Your task to perform on an android device: Open Yahoo.com Image 0: 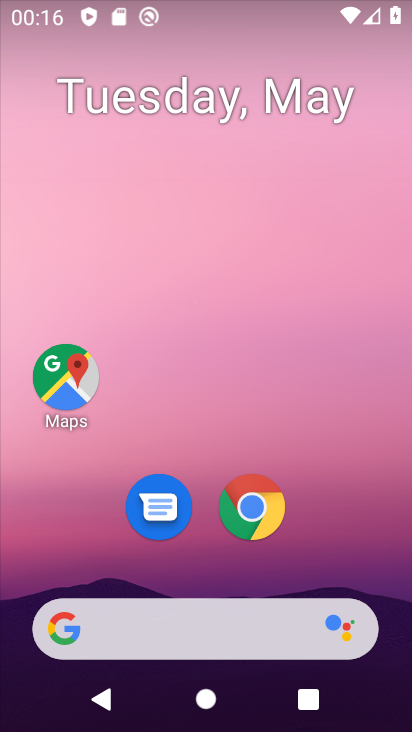
Step 0: drag from (192, 588) to (244, 246)
Your task to perform on an android device: Open Yahoo.com Image 1: 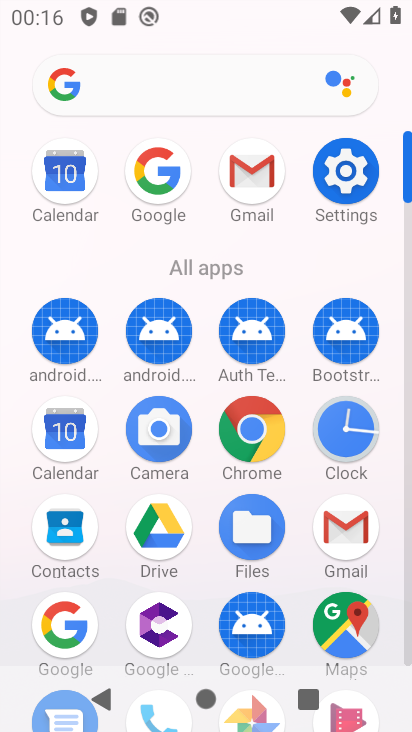
Step 1: click (251, 425)
Your task to perform on an android device: Open Yahoo.com Image 2: 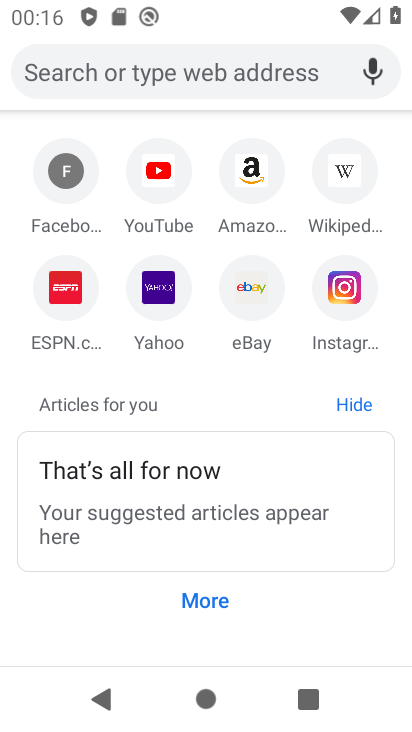
Step 2: click (155, 294)
Your task to perform on an android device: Open Yahoo.com Image 3: 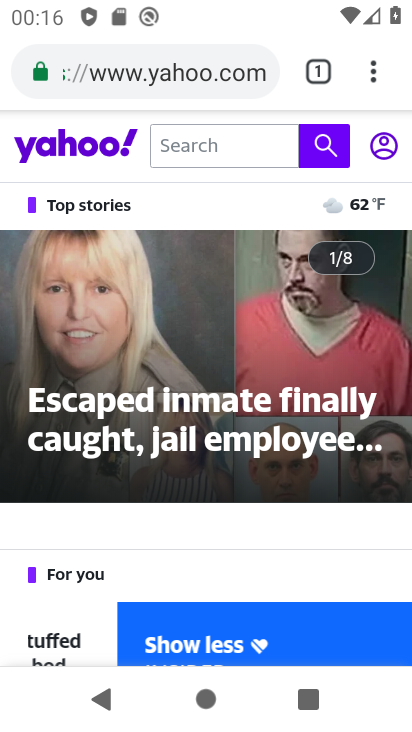
Step 3: task complete